Your task to perform on an android device: Open Chrome and go to settings Image 0: 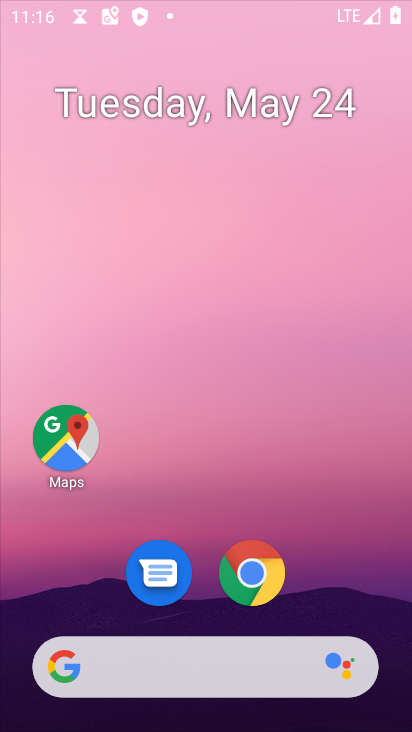
Step 0: click (158, 118)
Your task to perform on an android device: Open Chrome and go to settings Image 1: 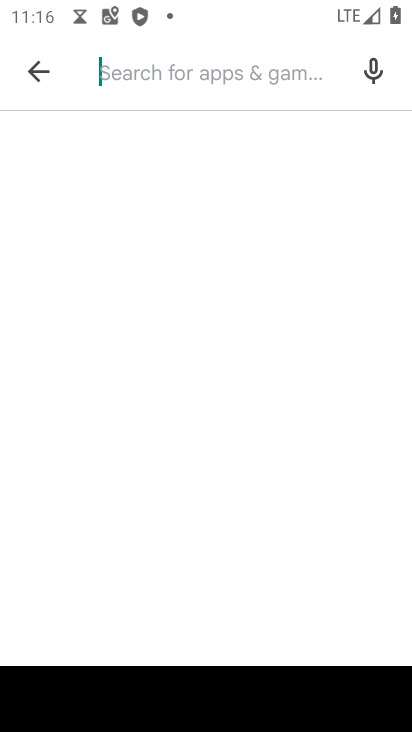
Step 1: press home button
Your task to perform on an android device: Open Chrome and go to settings Image 2: 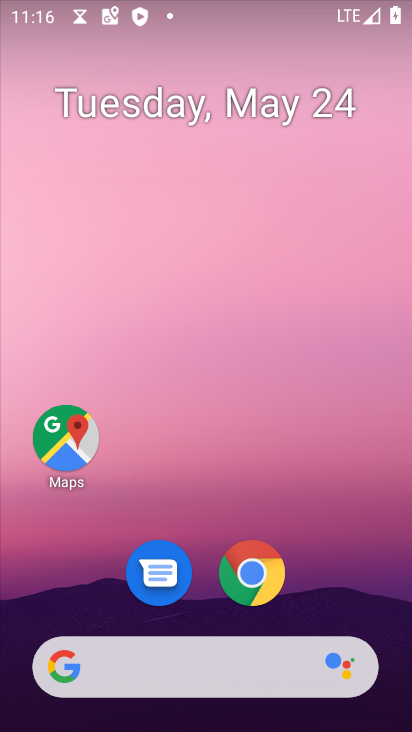
Step 2: click (234, 578)
Your task to perform on an android device: Open Chrome and go to settings Image 3: 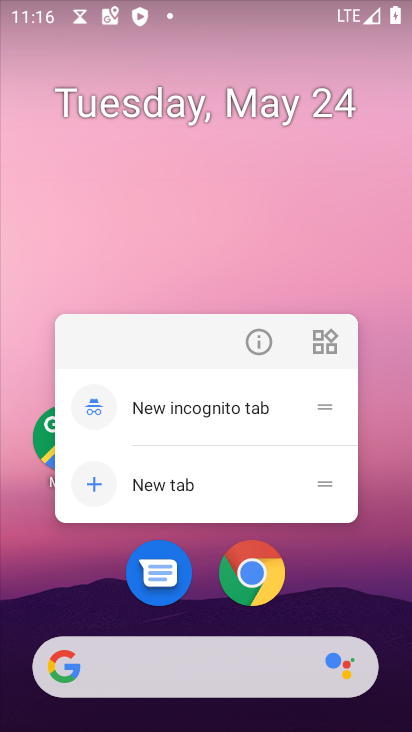
Step 3: click (253, 579)
Your task to perform on an android device: Open Chrome and go to settings Image 4: 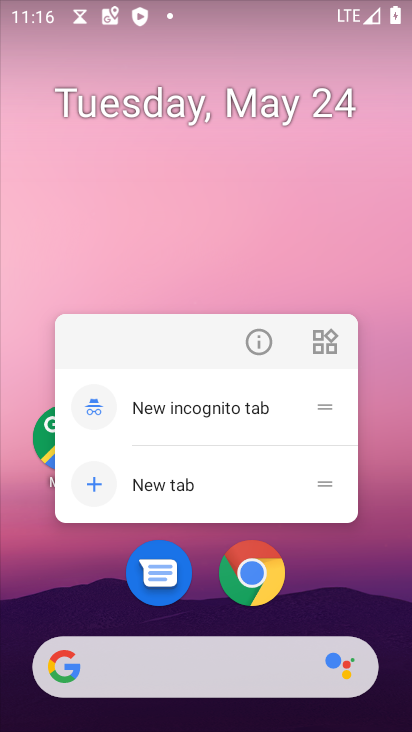
Step 4: click (265, 577)
Your task to perform on an android device: Open Chrome and go to settings Image 5: 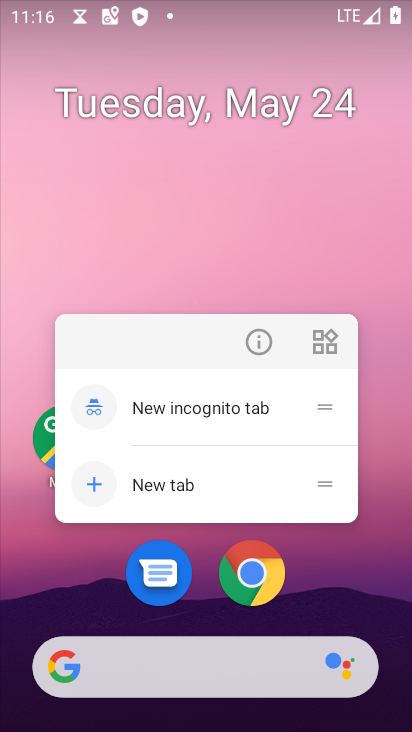
Step 5: click (260, 591)
Your task to perform on an android device: Open Chrome and go to settings Image 6: 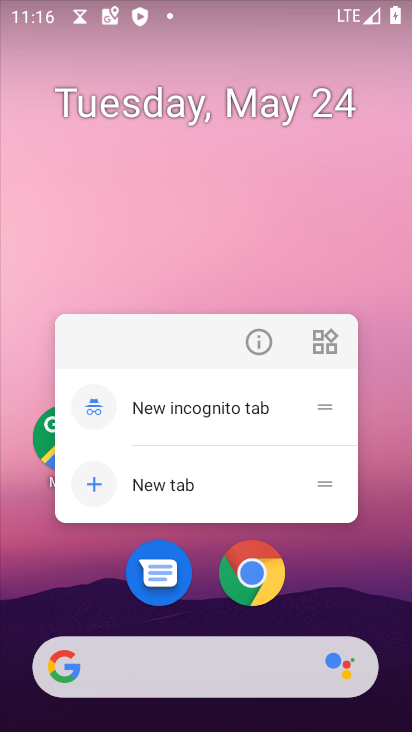
Step 6: click (259, 582)
Your task to perform on an android device: Open Chrome and go to settings Image 7: 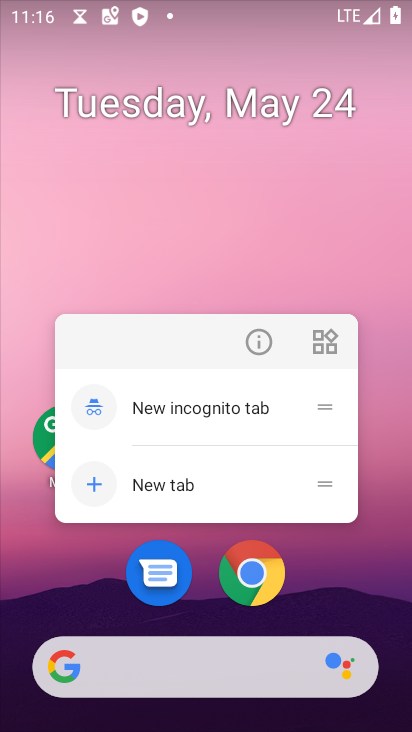
Step 7: click (260, 561)
Your task to perform on an android device: Open Chrome and go to settings Image 8: 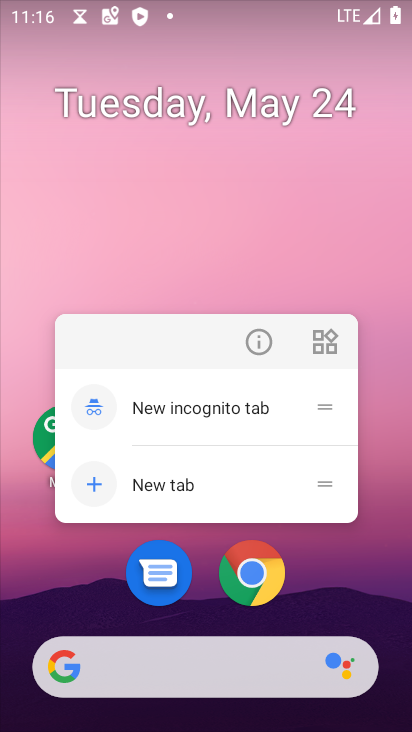
Step 8: click (246, 563)
Your task to perform on an android device: Open Chrome and go to settings Image 9: 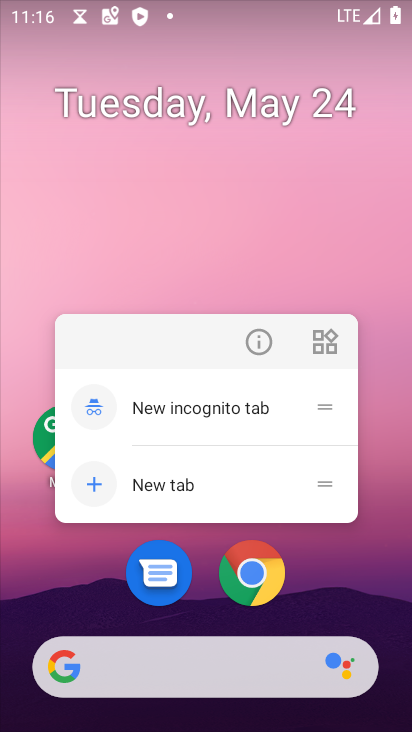
Step 9: click (251, 589)
Your task to perform on an android device: Open Chrome and go to settings Image 10: 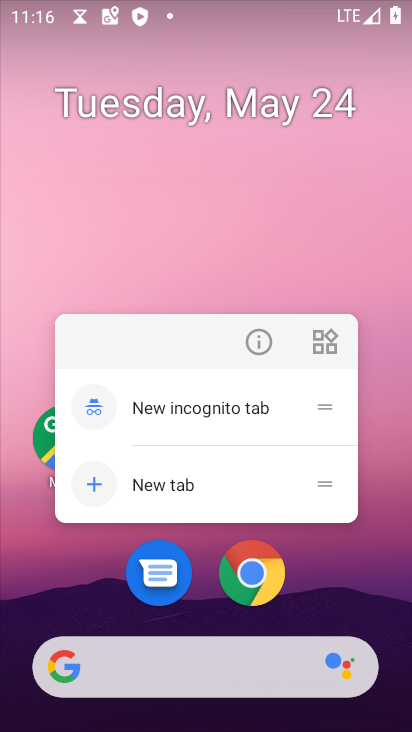
Step 10: click (308, 570)
Your task to perform on an android device: Open Chrome and go to settings Image 11: 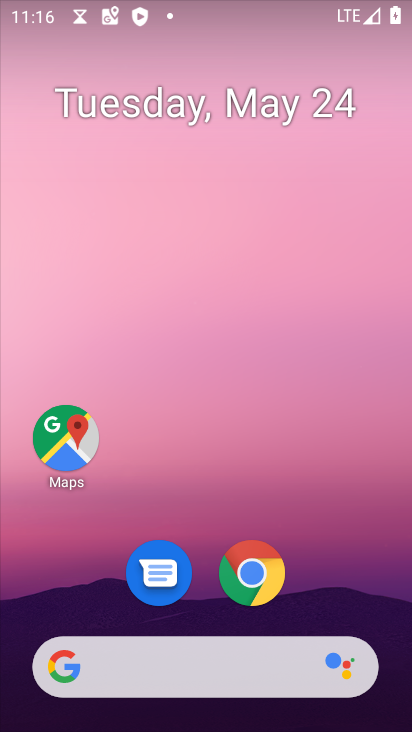
Step 11: click (270, 591)
Your task to perform on an android device: Open Chrome and go to settings Image 12: 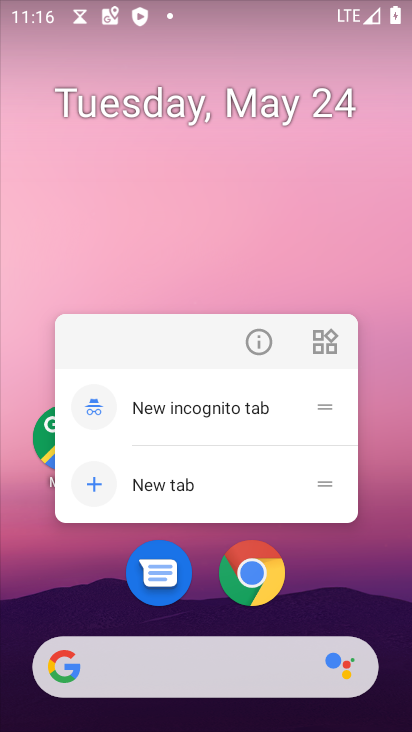
Step 12: click (270, 569)
Your task to perform on an android device: Open Chrome and go to settings Image 13: 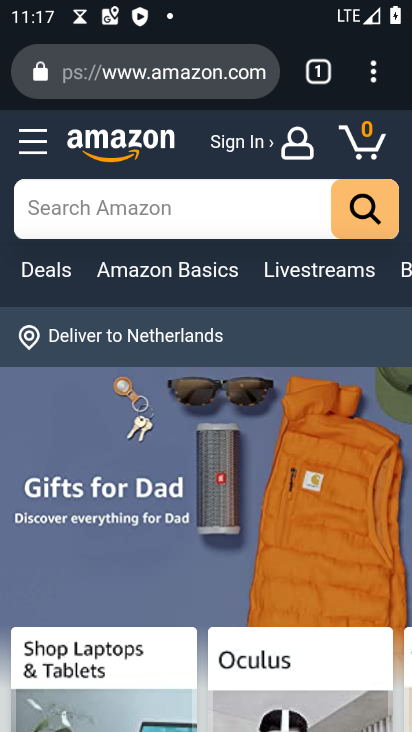
Step 13: task complete